Your task to perform on an android device: delete a single message in the gmail app Image 0: 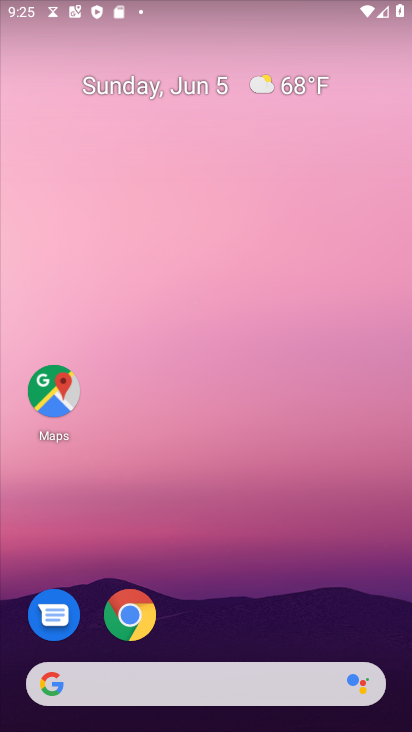
Step 0: drag from (70, 725) to (143, 126)
Your task to perform on an android device: delete a single message in the gmail app Image 1: 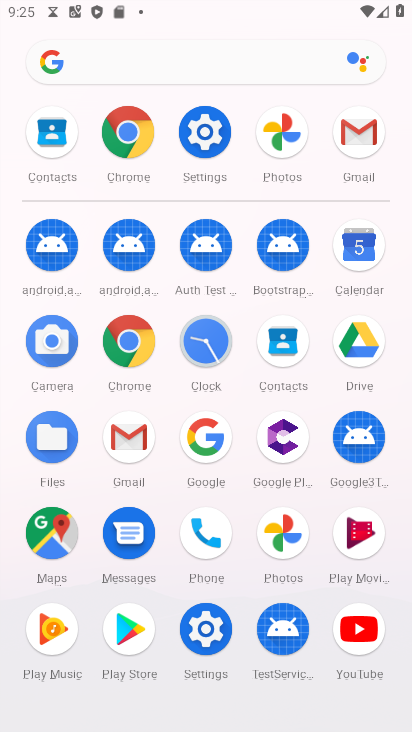
Step 1: click (142, 444)
Your task to perform on an android device: delete a single message in the gmail app Image 2: 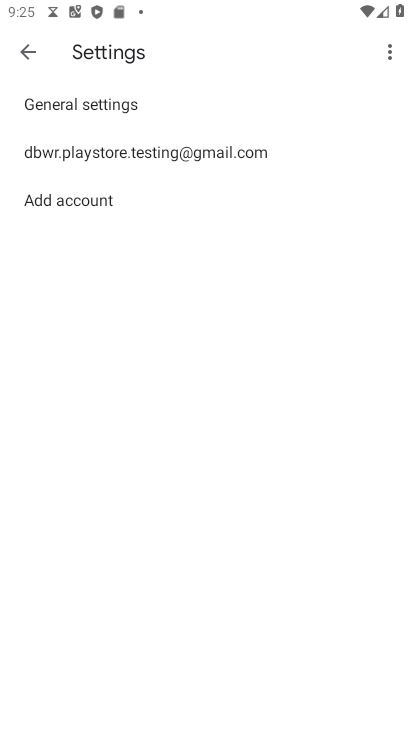
Step 2: click (42, 57)
Your task to perform on an android device: delete a single message in the gmail app Image 3: 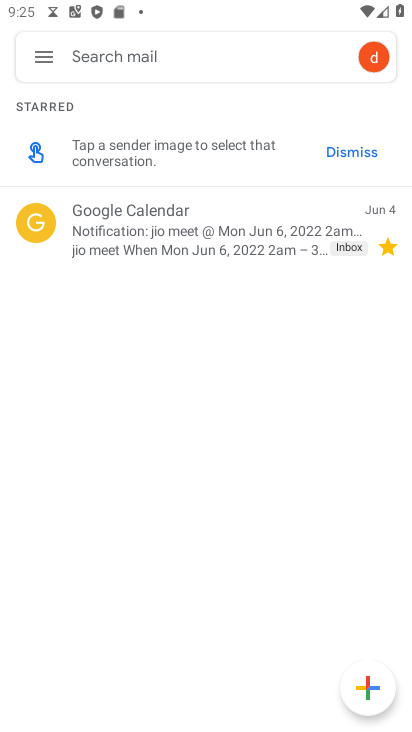
Step 3: click (189, 247)
Your task to perform on an android device: delete a single message in the gmail app Image 4: 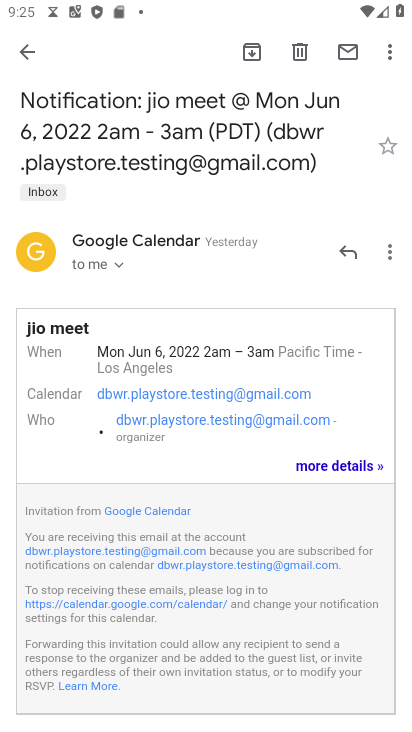
Step 4: click (308, 53)
Your task to perform on an android device: delete a single message in the gmail app Image 5: 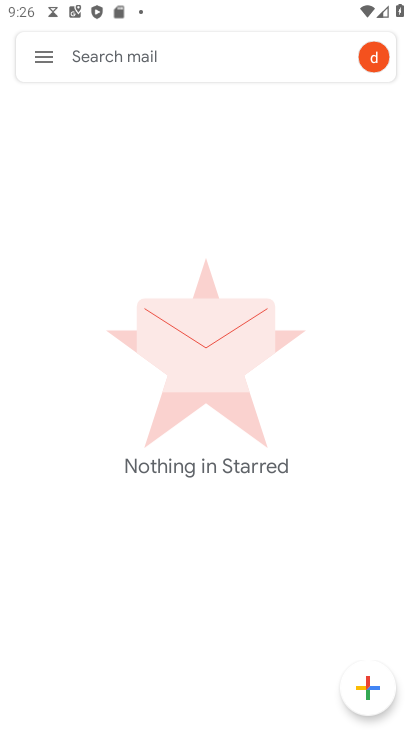
Step 5: task complete